Your task to perform on an android device: Go to ESPN.com Image 0: 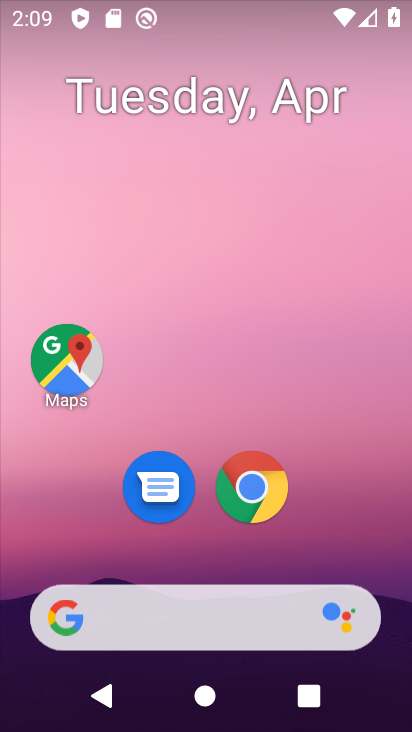
Step 0: click (259, 510)
Your task to perform on an android device: Go to ESPN.com Image 1: 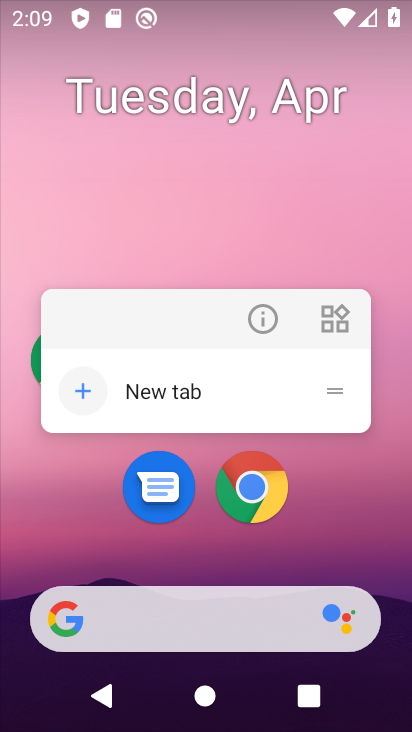
Step 1: click (258, 505)
Your task to perform on an android device: Go to ESPN.com Image 2: 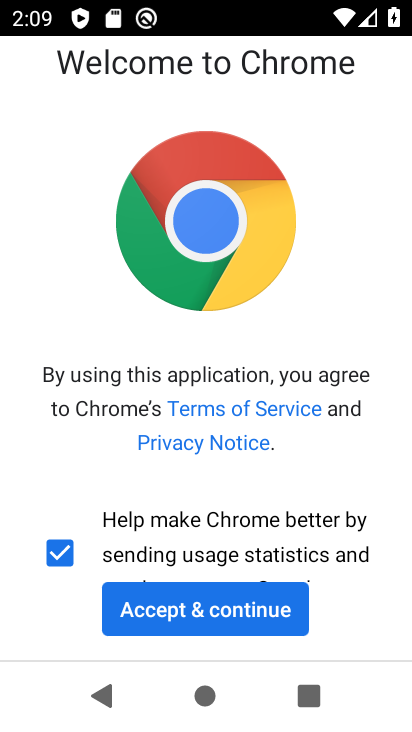
Step 2: click (157, 603)
Your task to perform on an android device: Go to ESPN.com Image 3: 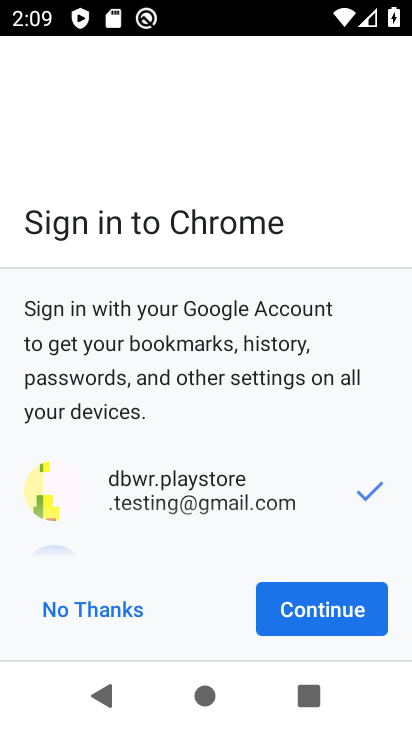
Step 3: click (299, 622)
Your task to perform on an android device: Go to ESPN.com Image 4: 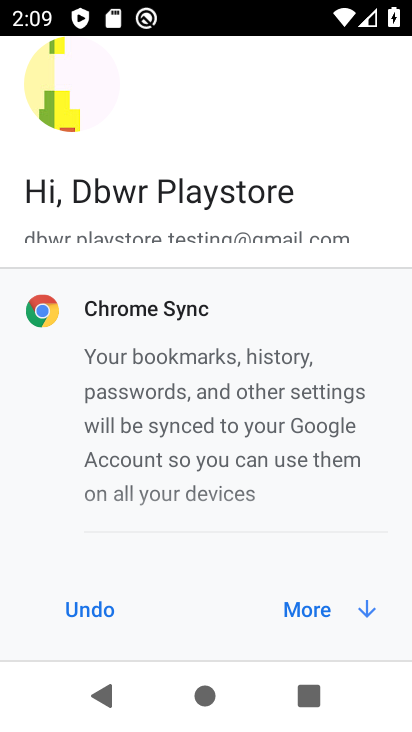
Step 4: click (320, 610)
Your task to perform on an android device: Go to ESPN.com Image 5: 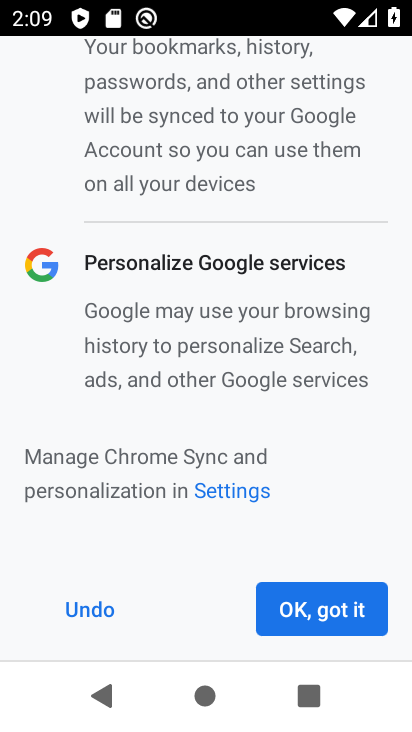
Step 5: click (320, 610)
Your task to perform on an android device: Go to ESPN.com Image 6: 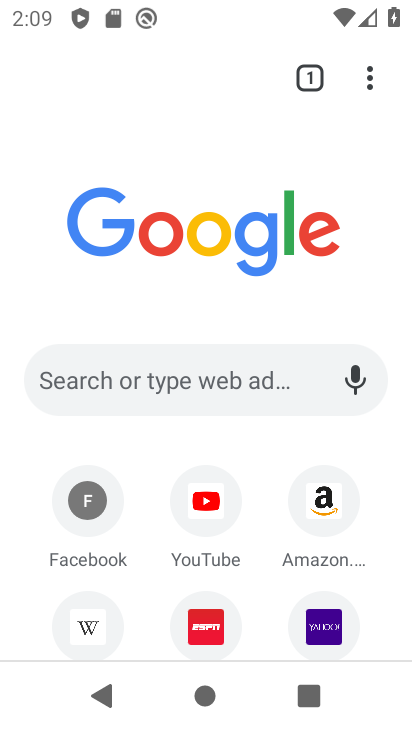
Step 6: click (230, 373)
Your task to perform on an android device: Go to ESPN.com Image 7: 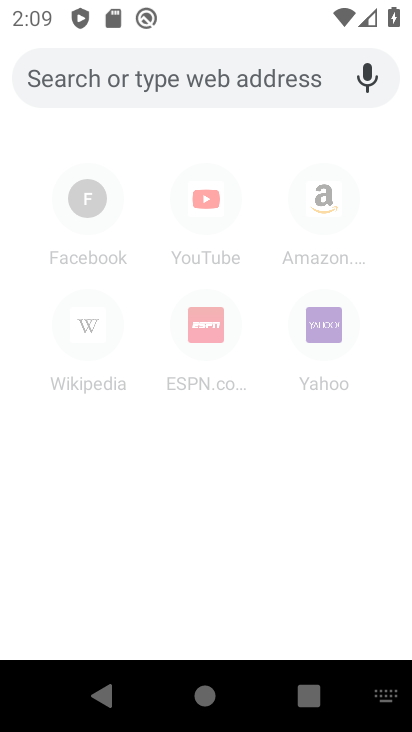
Step 7: type "ESPN.com"
Your task to perform on an android device: Go to ESPN.com Image 8: 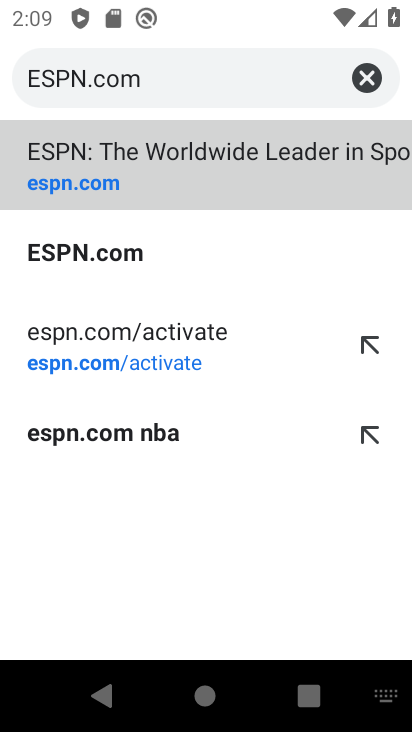
Step 8: click (156, 170)
Your task to perform on an android device: Go to ESPN.com Image 9: 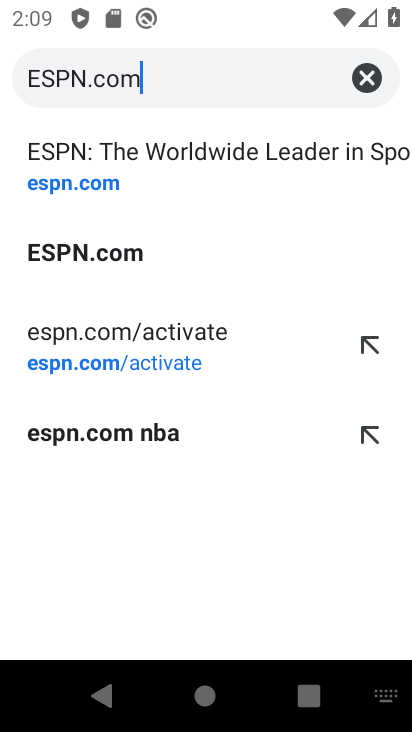
Step 9: task complete